Your task to perform on an android device: change notification settings in the gmail app Image 0: 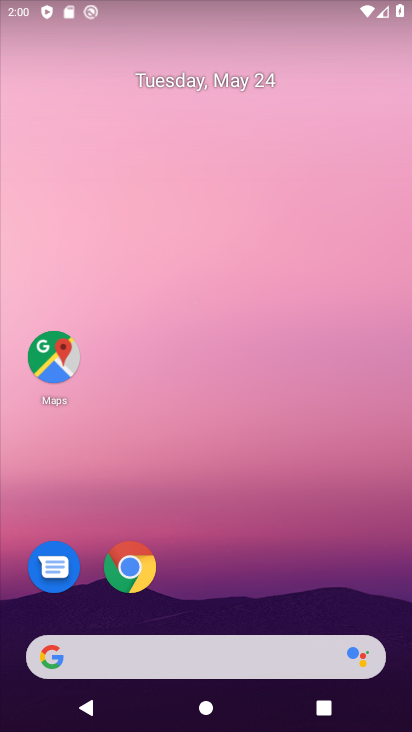
Step 0: drag from (203, 543) to (262, 48)
Your task to perform on an android device: change notification settings in the gmail app Image 1: 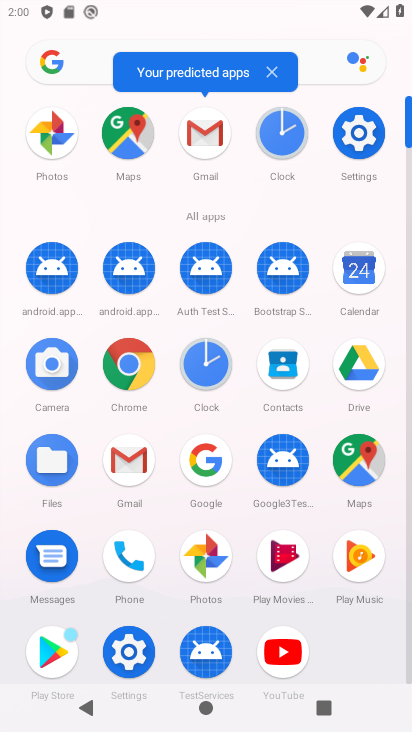
Step 1: click (218, 124)
Your task to perform on an android device: change notification settings in the gmail app Image 2: 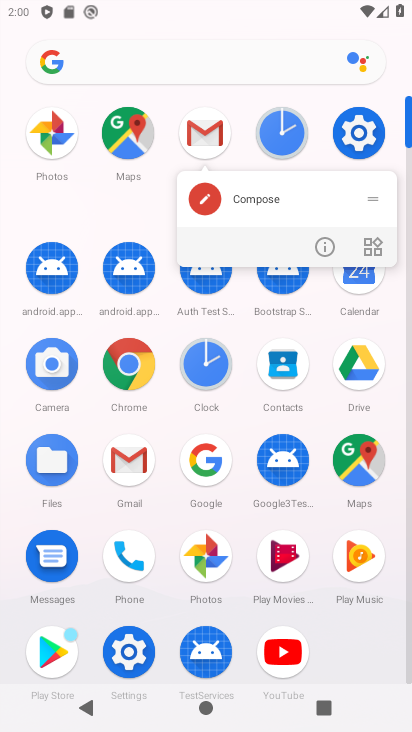
Step 2: click (331, 243)
Your task to perform on an android device: change notification settings in the gmail app Image 3: 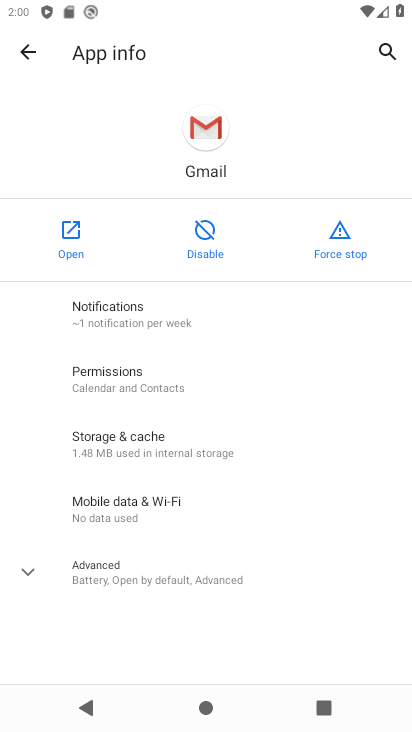
Step 3: click (165, 306)
Your task to perform on an android device: change notification settings in the gmail app Image 4: 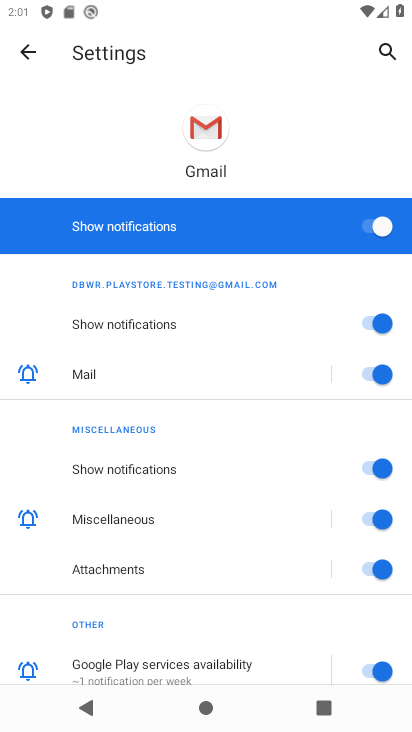
Step 4: click (380, 319)
Your task to perform on an android device: change notification settings in the gmail app Image 5: 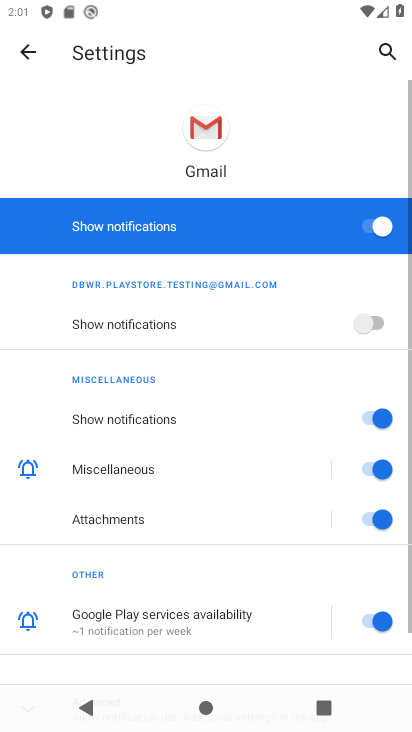
Step 5: task complete